Your task to perform on an android device: Turn on the flashlight Image 0: 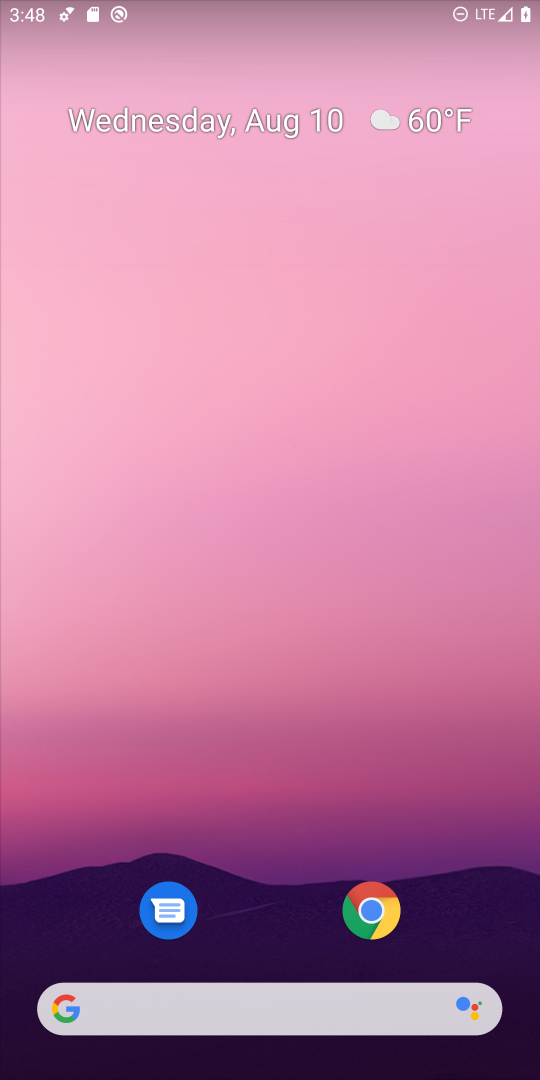
Step 0: drag from (206, 11) to (136, 714)
Your task to perform on an android device: Turn on the flashlight Image 1: 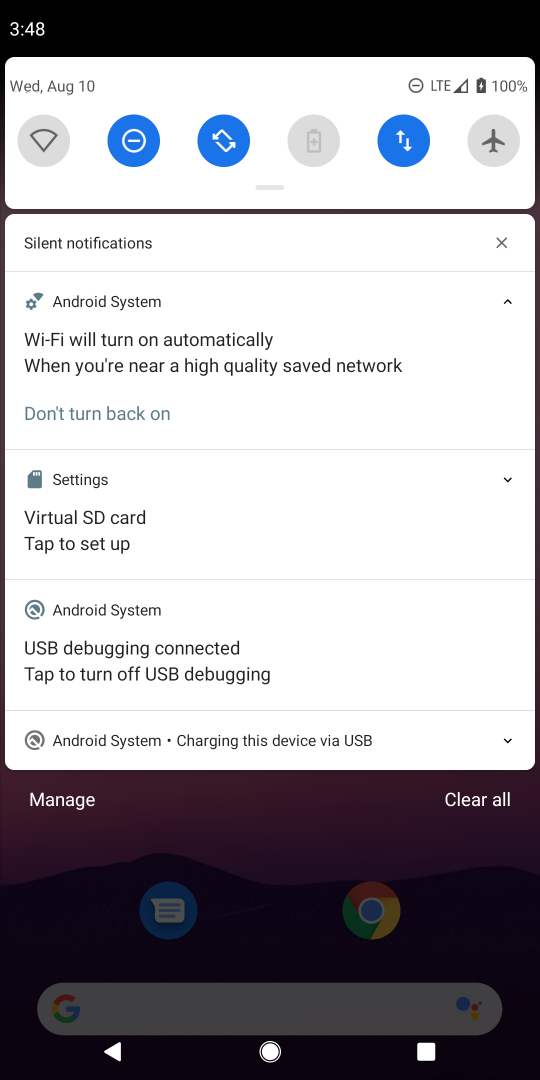
Step 1: task complete